Your task to perform on an android device: Search for Mexican restaurants on Maps Image 0: 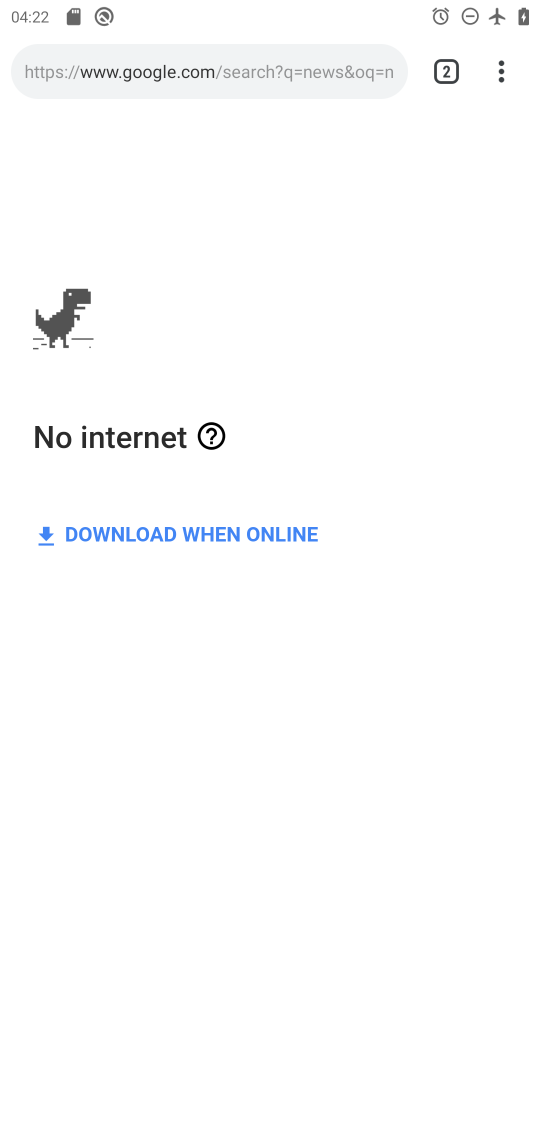
Step 0: press home button
Your task to perform on an android device: Search for Mexican restaurants on Maps Image 1: 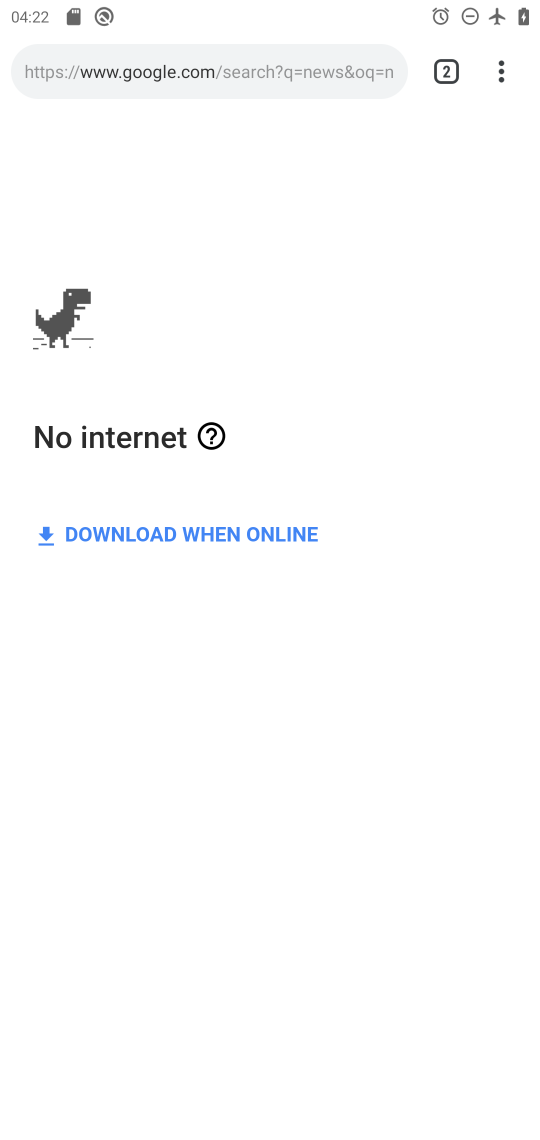
Step 1: press home button
Your task to perform on an android device: Search for Mexican restaurants on Maps Image 2: 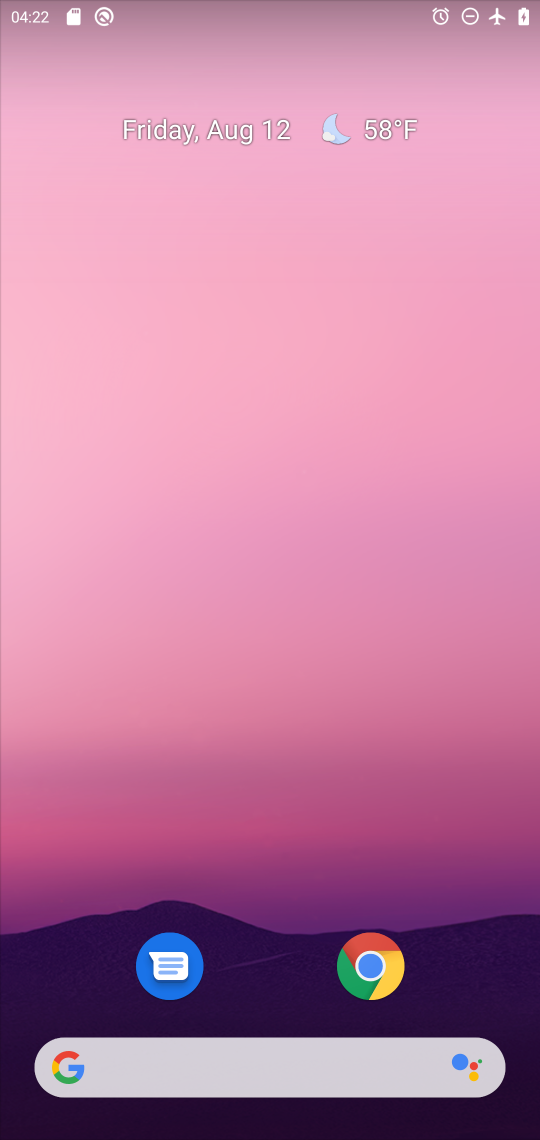
Step 2: drag from (254, 909) to (373, 127)
Your task to perform on an android device: Search for Mexican restaurants on Maps Image 3: 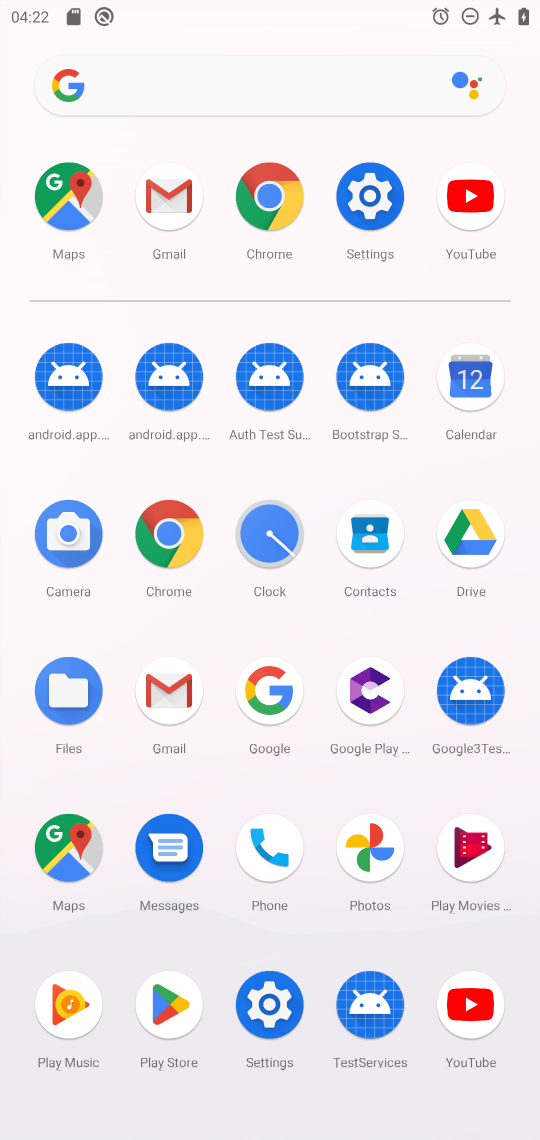
Step 3: click (64, 843)
Your task to perform on an android device: Search for Mexican restaurants on Maps Image 4: 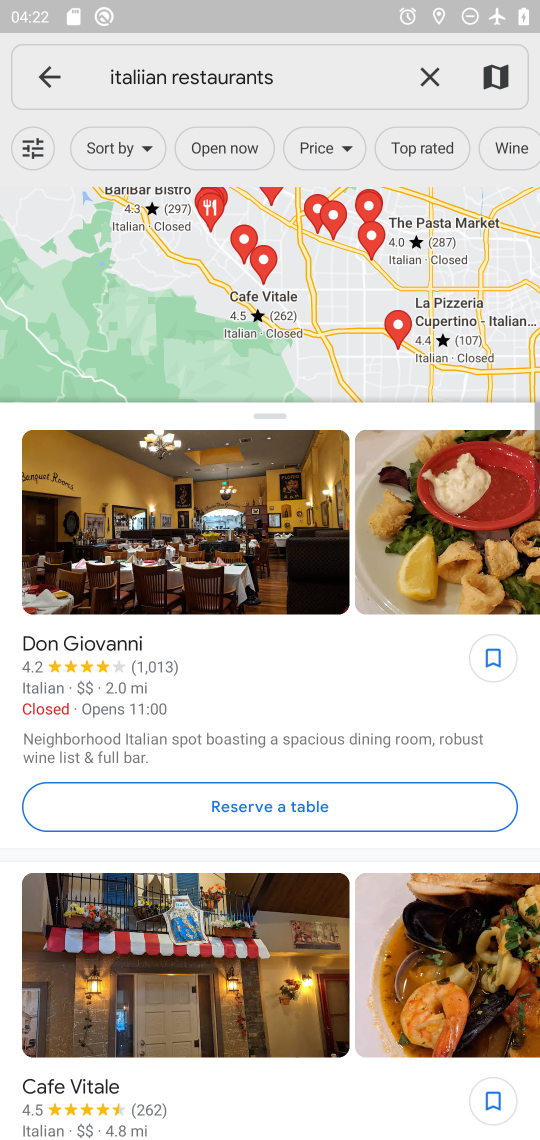
Step 4: click (432, 81)
Your task to perform on an android device: Search for Mexican restaurants on Maps Image 5: 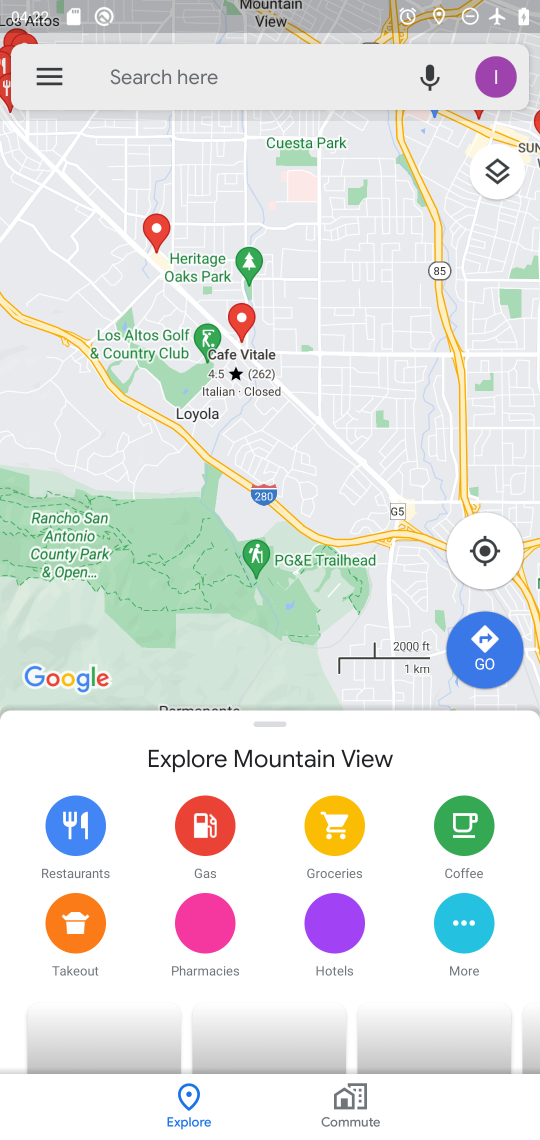
Step 5: click (263, 80)
Your task to perform on an android device: Search for Mexican restaurants on Maps Image 6: 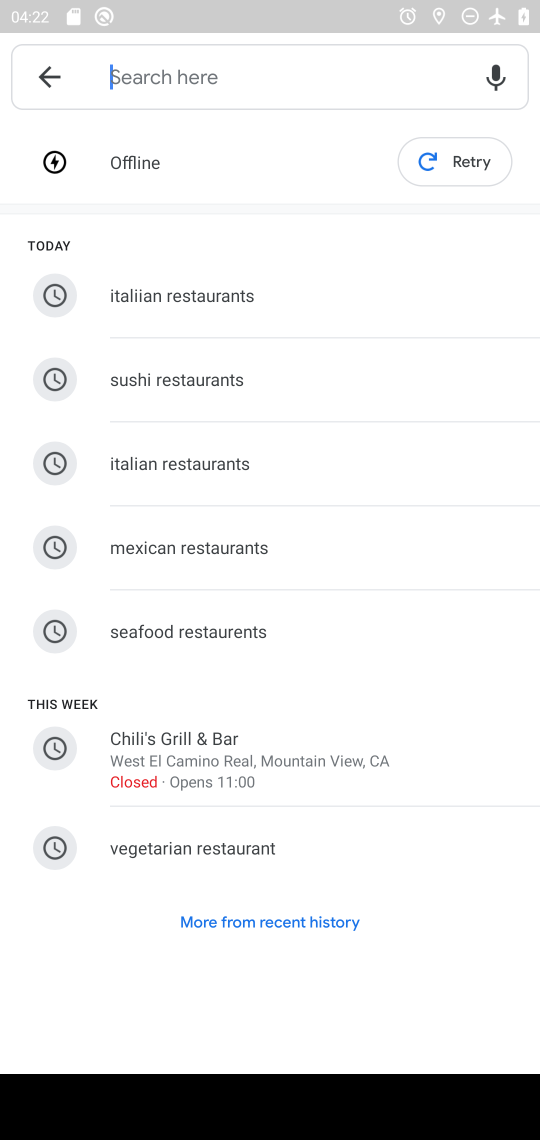
Step 6: click (262, 553)
Your task to perform on an android device: Search for Mexican restaurants on Maps Image 7: 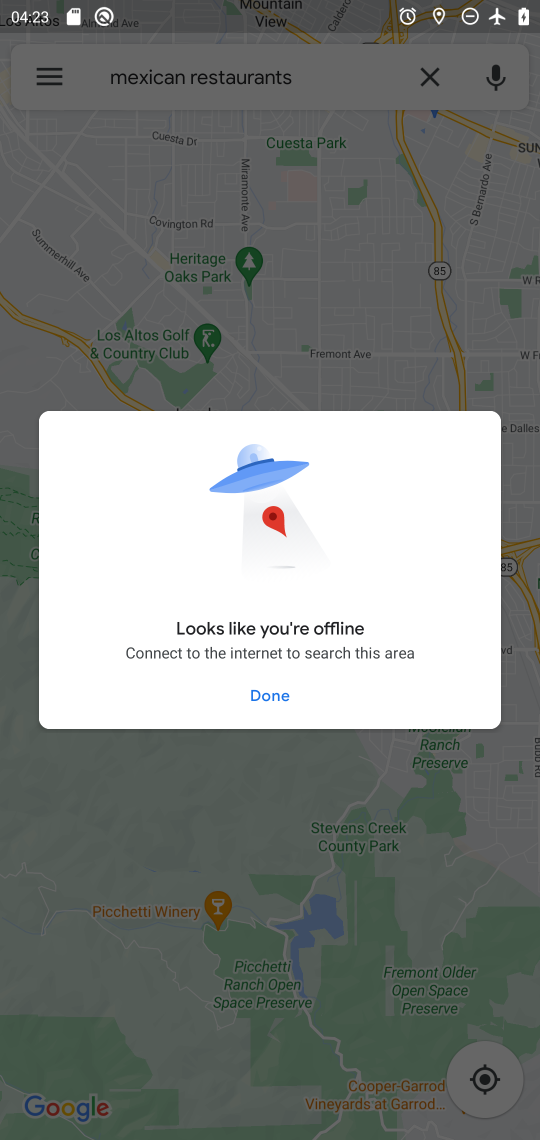
Step 7: task complete